Your task to perform on an android device: turn on notifications settings in the gmail app Image 0: 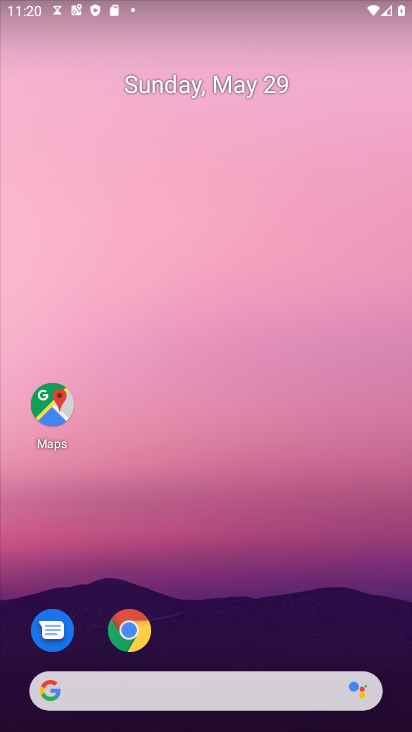
Step 0: drag from (228, 559) to (179, 73)
Your task to perform on an android device: turn on notifications settings in the gmail app Image 1: 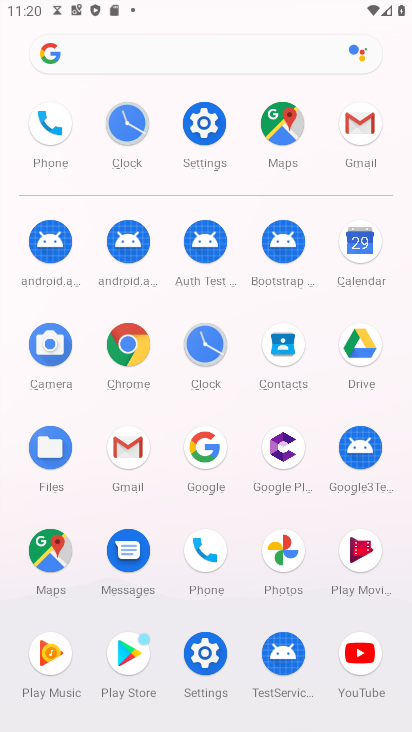
Step 1: click (353, 127)
Your task to perform on an android device: turn on notifications settings in the gmail app Image 2: 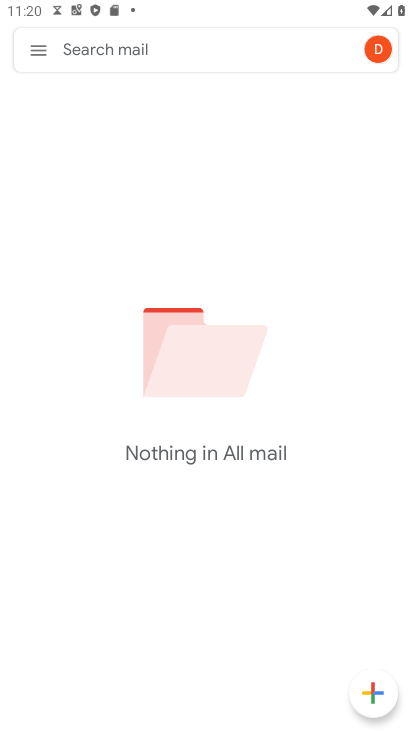
Step 2: click (41, 50)
Your task to perform on an android device: turn on notifications settings in the gmail app Image 3: 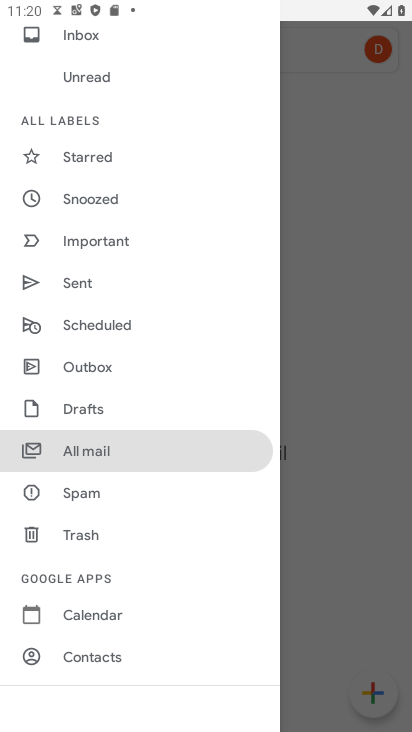
Step 3: drag from (153, 622) to (163, 185)
Your task to perform on an android device: turn on notifications settings in the gmail app Image 4: 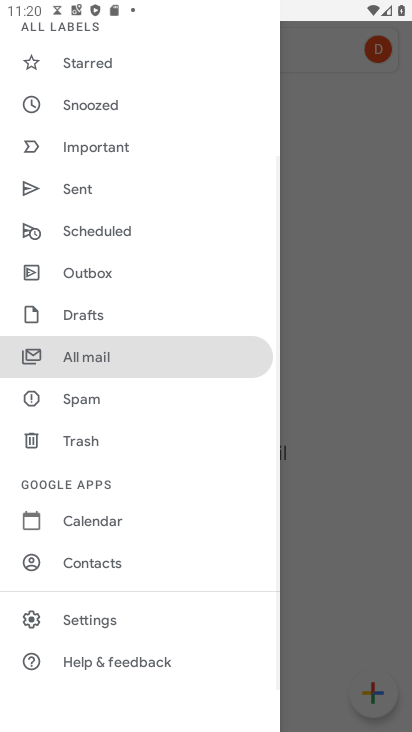
Step 4: click (111, 600)
Your task to perform on an android device: turn on notifications settings in the gmail app Image 5: 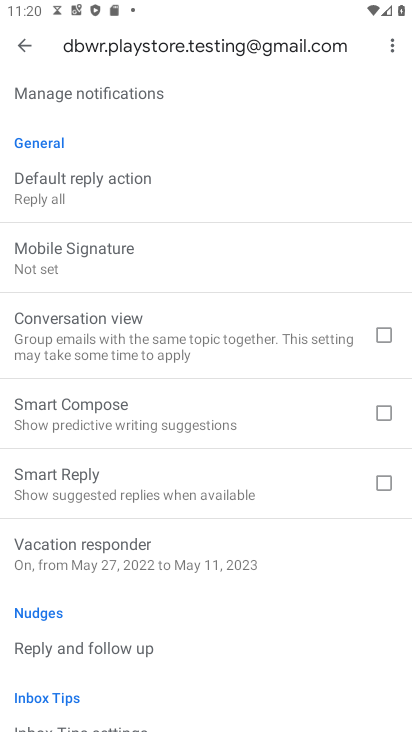
Step 5: drag from (115, 99) to (142, 527)
Your task to perform on an android device: turn on notifications settings in the gmail app Image 6: 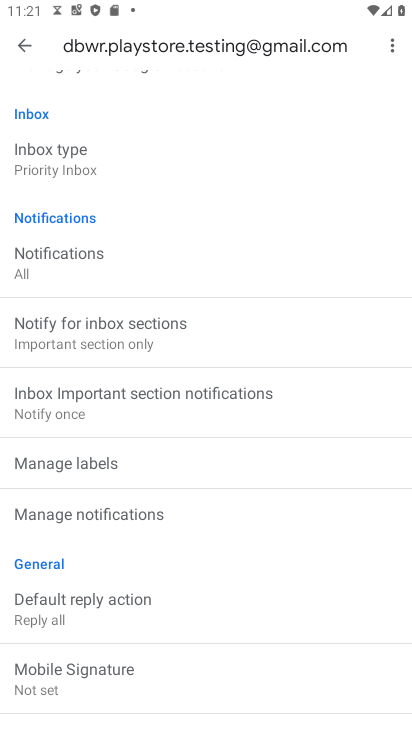
Step 6: click (45, 261)
Your task to perform on an android device: turn on notifications settings in the gmail app Image 7: 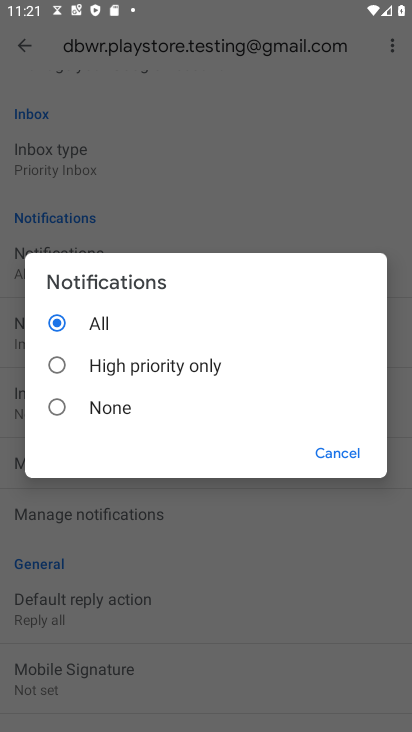
Step 7: click (326, 449)
Your task to perform on an android device: turn on notifications settings in the gmail app Image 8: 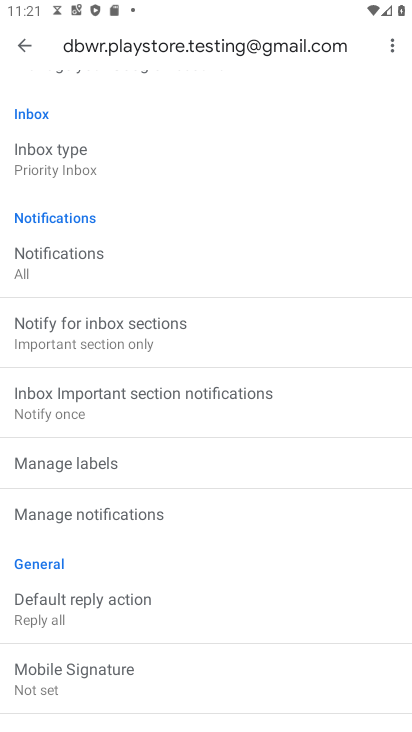
Step 8: drag from (163, 654) to (193, 254)
Your task to perform on an android device: turn on notifications settings in the gmail app Image 9: 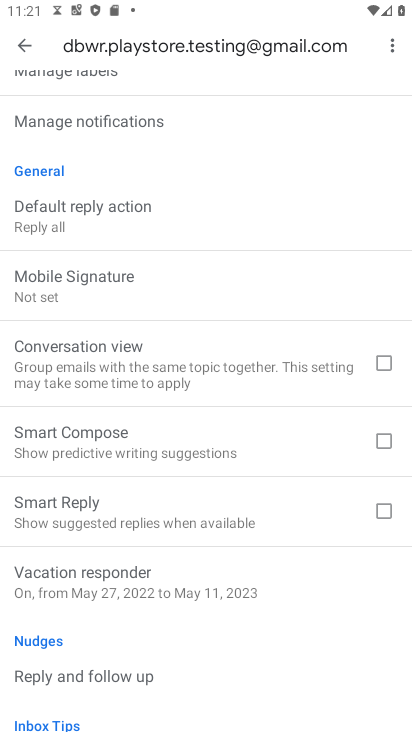
Step 9: drag from (193, 595) to (192, 260)
Your task to perform on an android device: turn on notifications settings in the gmail app Image 10: 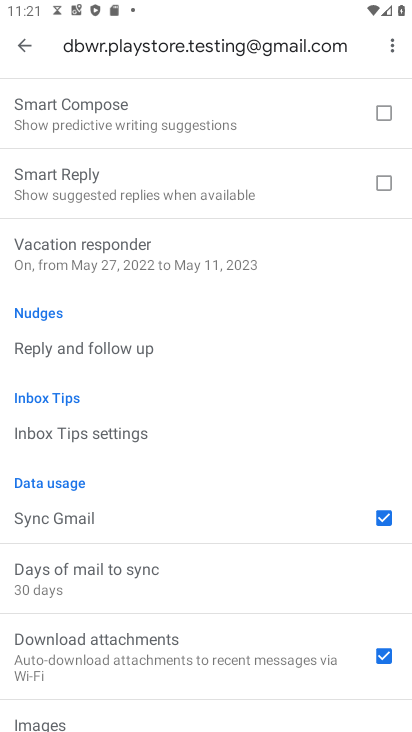
Step 10: drag from (198, 553) to (211, 381)
Your task to perform on an android device: turn on notifications settings in the gmail app Image 11: 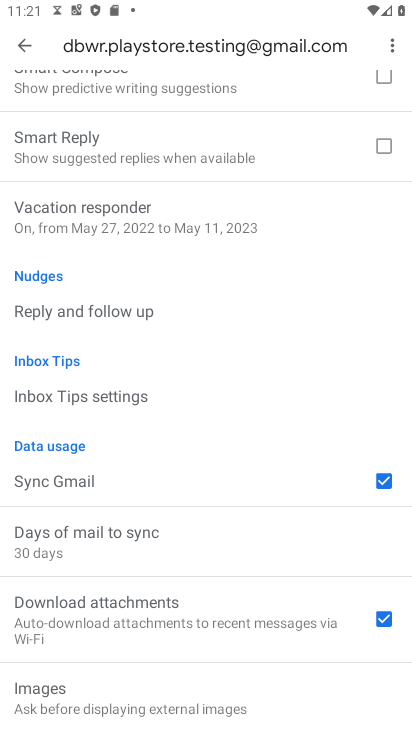
Step 11: drag from (152, 679) to (213, 122)
Your task to perform on an android device: turn on notifications settings in the gmail app Image 12: 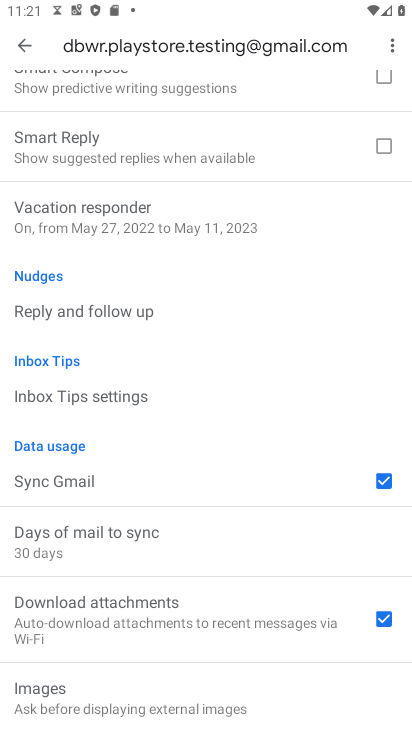
Step 12: drag from (211, 111) to (214, 662)
Your task to perform on an android device: turn on notifications settings in the gmail app Image 13: 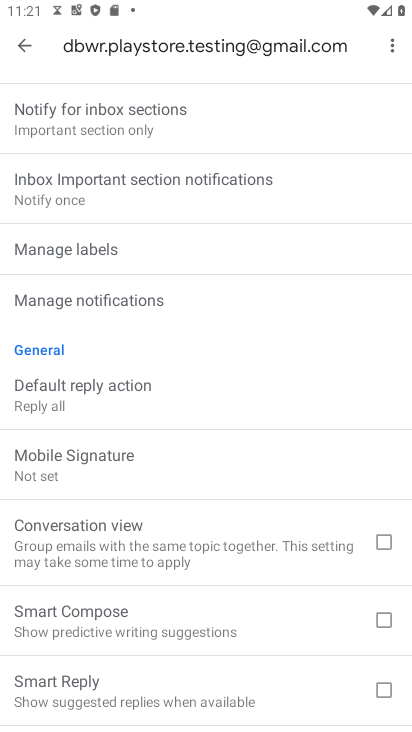
Step 13: drag from (242, 118) to (249, 618)
Your task to perform on an android device: turn on notifications settings in the gmail app Image 14: 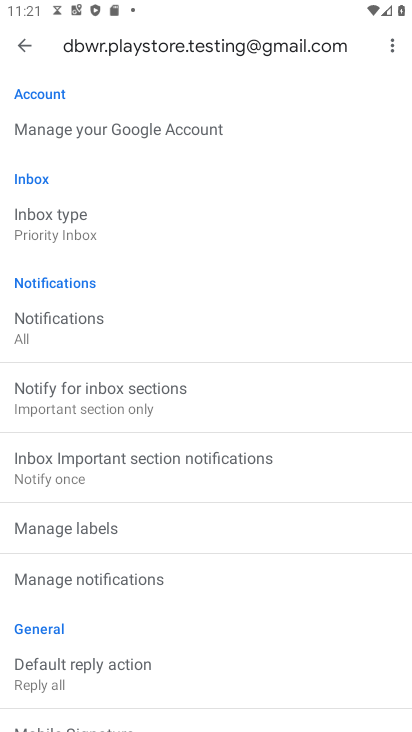
Step 14: drag from (190, 287) to (237, 660)
Your task to perform on an android device: turn on notifications settings in the gmail app Image 15: 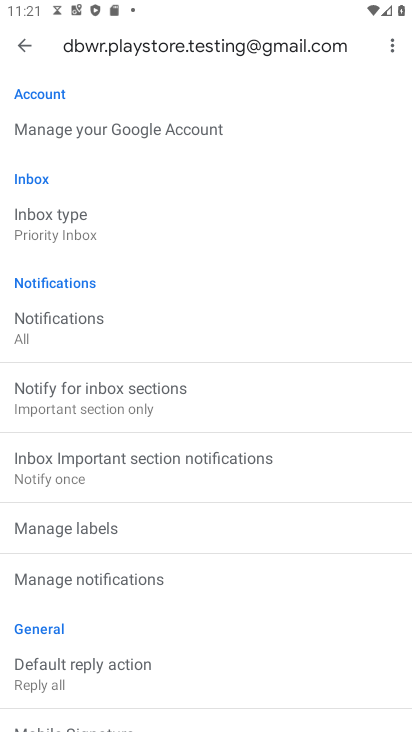
Step 15: click (38, 296)
Your task to perform on an android device: turn on notifications settings in the gmail app Image 16: 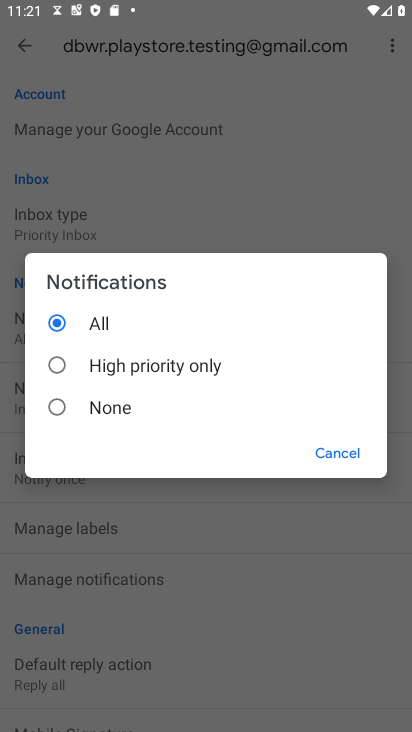
Step 16: click (101, 314)
Your task to perform on an android device: turn on notifications settings in the gmail app Image 17: 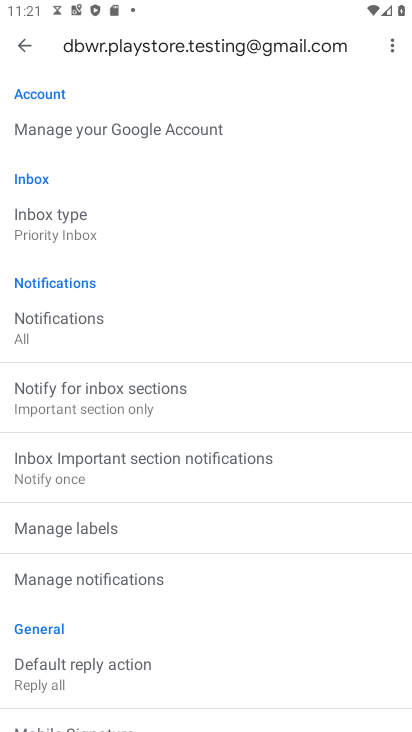
Step 17: task complete